Your task to perform on an android device: Open network settings Image 0: 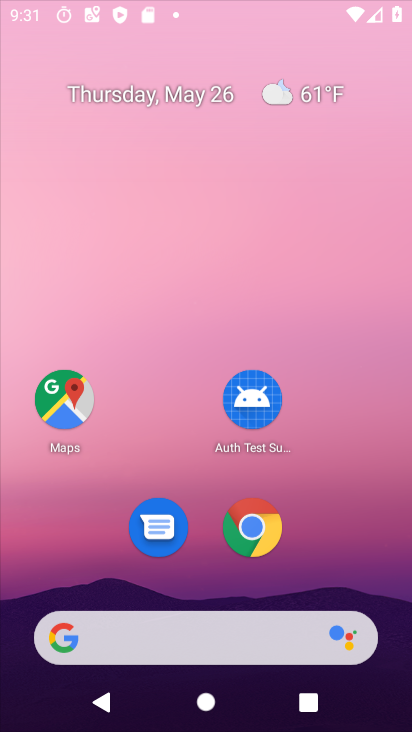
Step 0: click (356, 92)
Your task to perform on an android device: Open network settings Image 1: 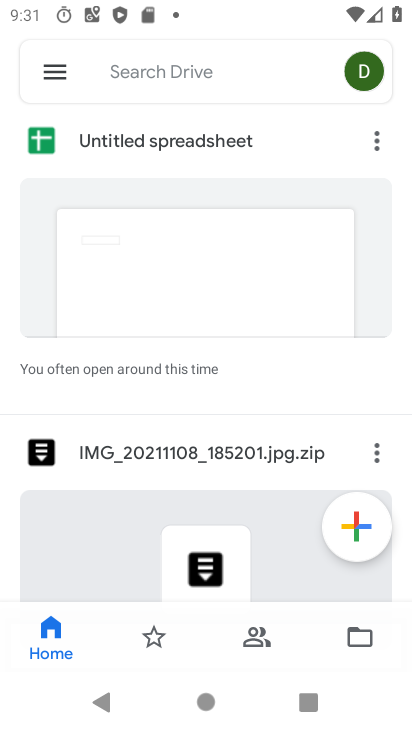
Step 1: press home button
Your task to perform on an android device: Open network settings Image 2: 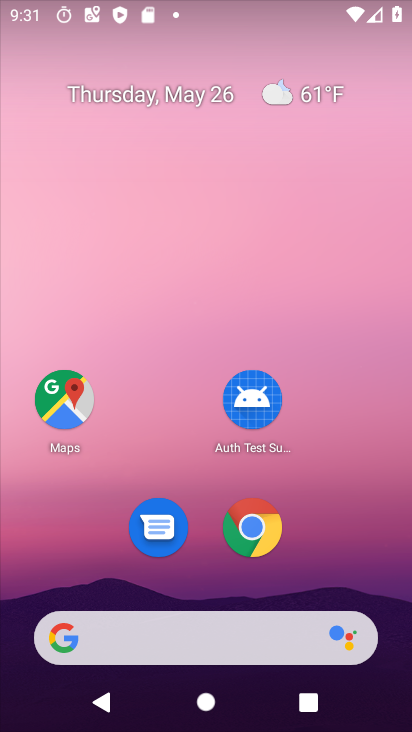
Step 2: drag from (359, 511) to (327, 184)
Your task to perform on an android device: Open network settings Image 3: 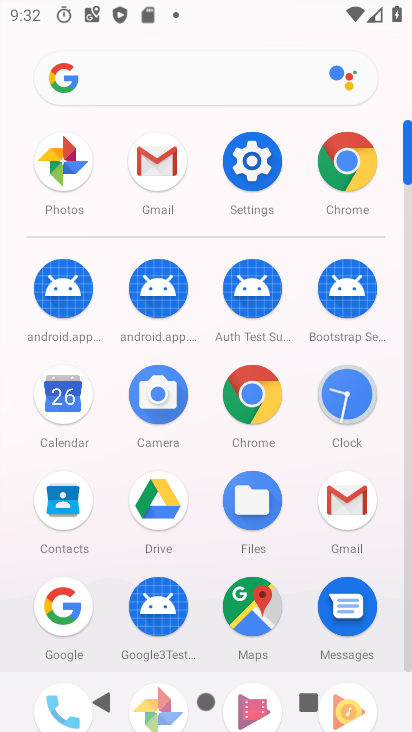
Step 3: click (263, 171)
Your task to perform on an android device: Open network settings Image 4: 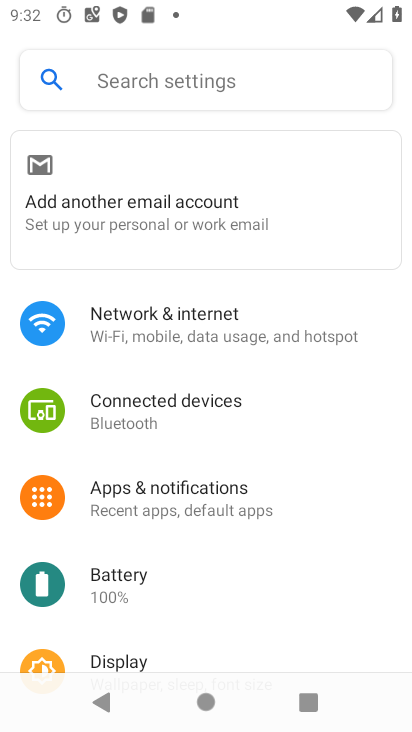
Step 4: click (205, 322)
Your task to perform on an android device: Open network settings Image 5: 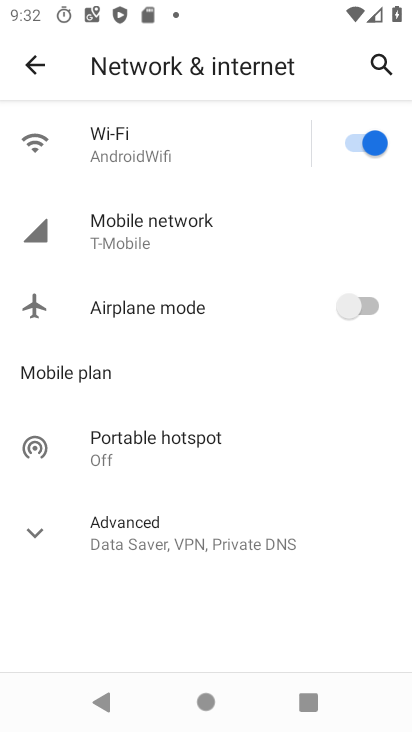
Step 5: task complete